Your task to perform on an android device: Go to sound settings Image 0: 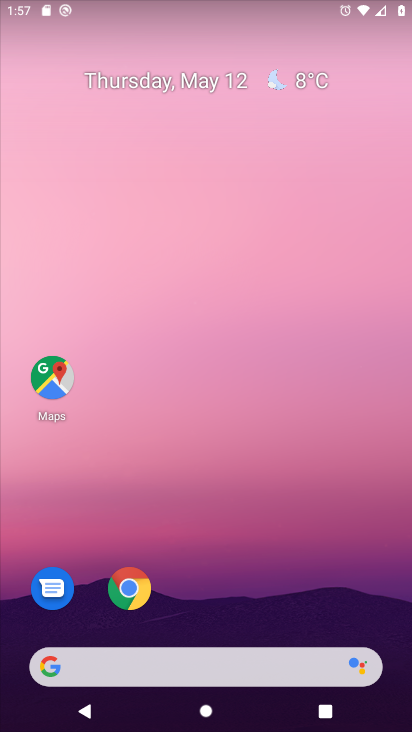
Step 0: drag from (245, 539) to (298, 54)
Your task to perform on an android device: Go to sound settings Image 1: 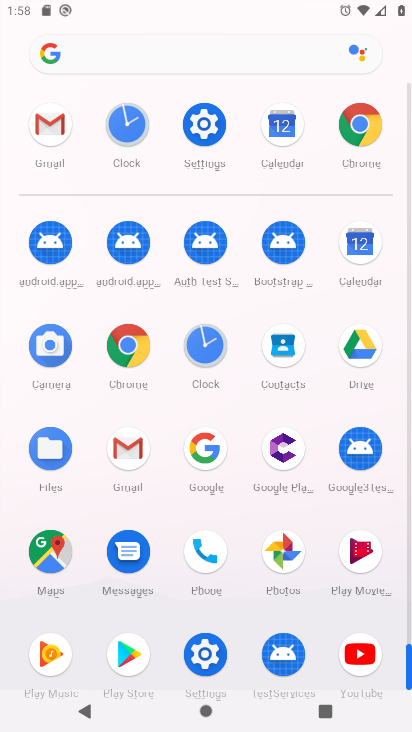
Step 1: click (204, 125)
Your task to perform on an android device: Go to sound settings Image 2: 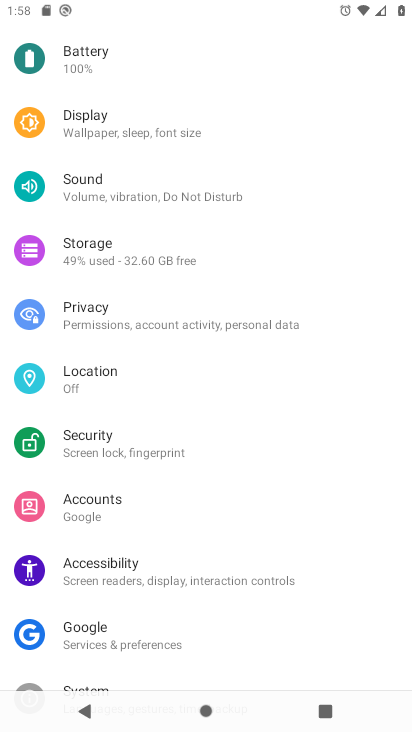
Step 2: click (131, 193)
Your task to perform on an android device: Go to sound settings Image 3: 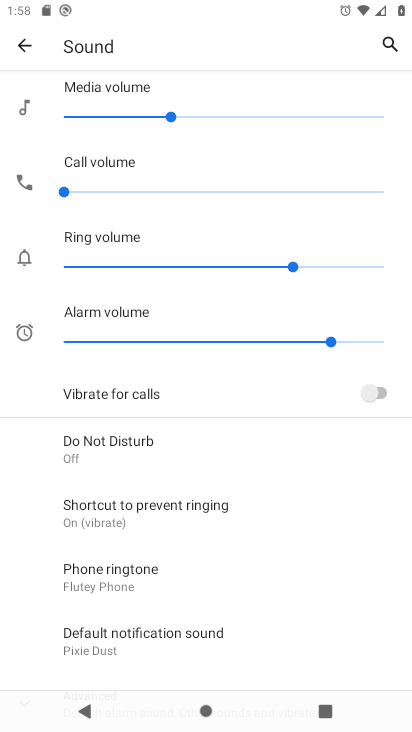
Step 3: task complete